Your task to perform on an android device: What is the speed of a rocket? Image 0: 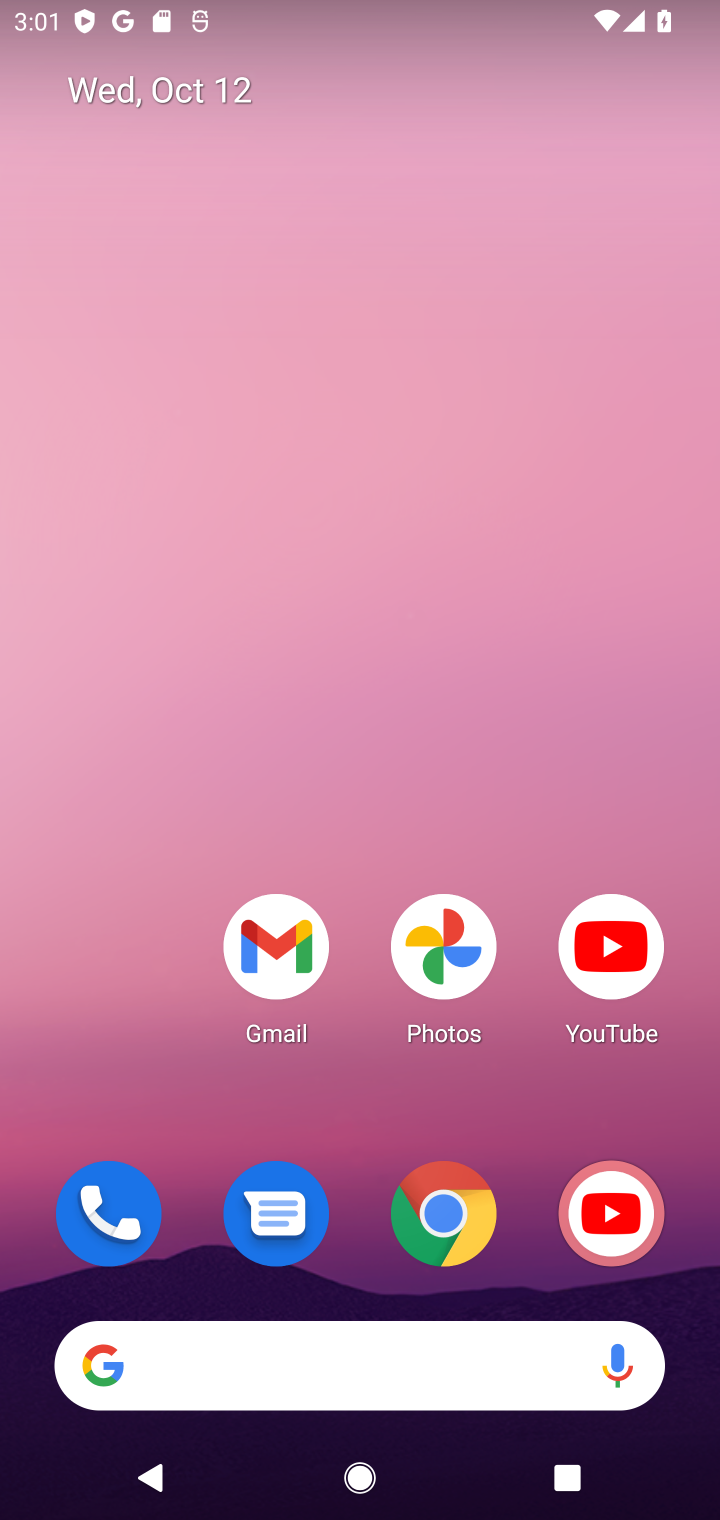
Step 0: click (372, 1372)
Your task to perform on an android device: What is the speed of a rocket? Image 1: 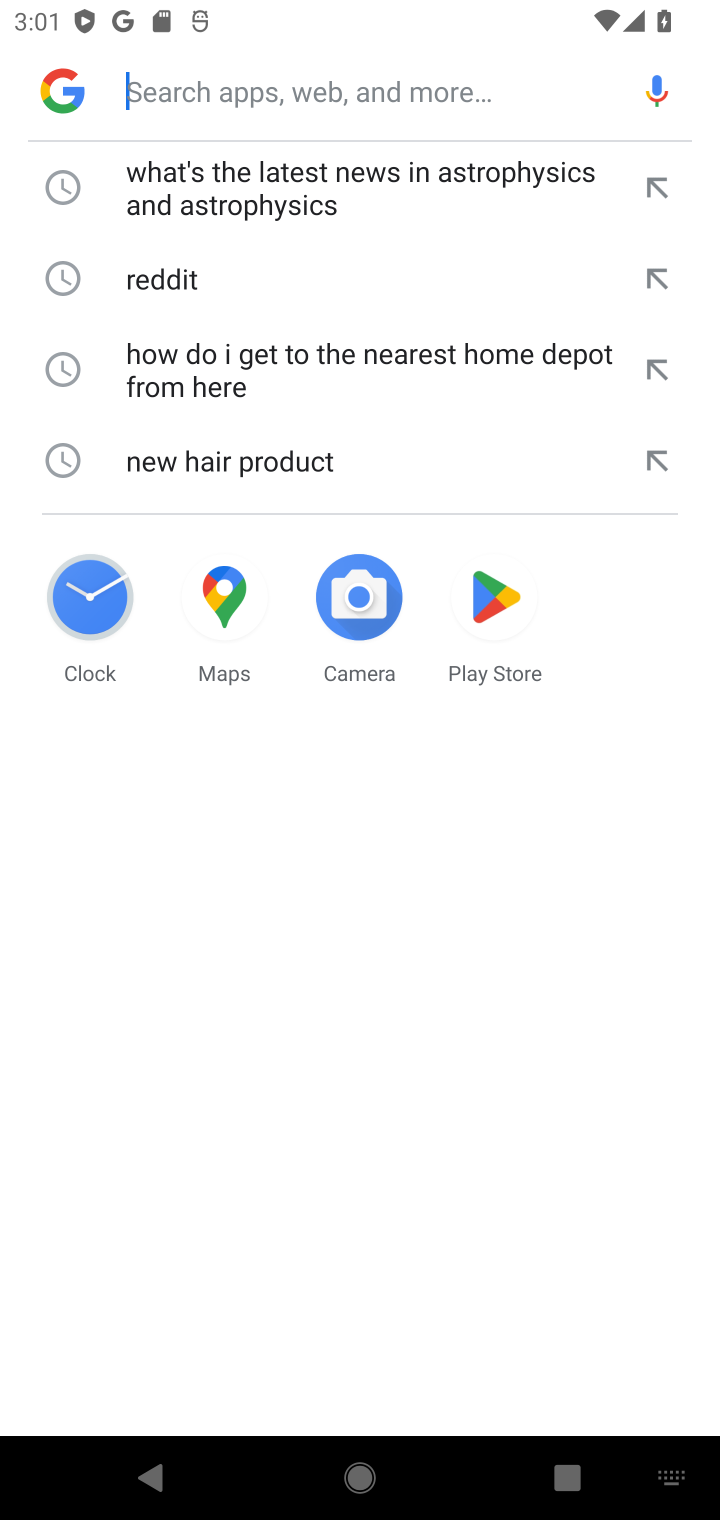
Step 1: click (207, 84)
Your task to perform on an android device: What is the speed of a rocket? Image 2: 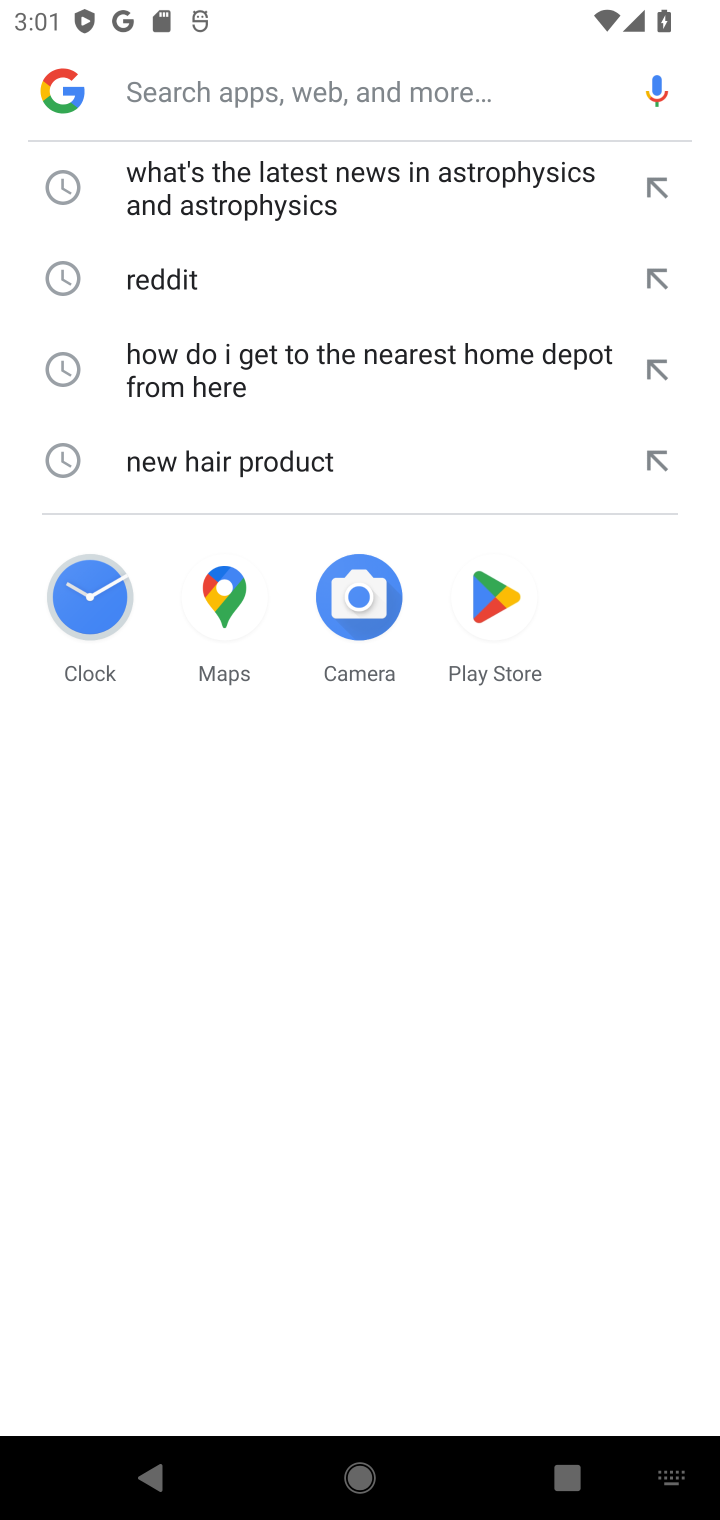
Step 2: type "What is the speed of a rocket?"
Your task to perform on an android device: What is the speed of a rocket? Image 3: 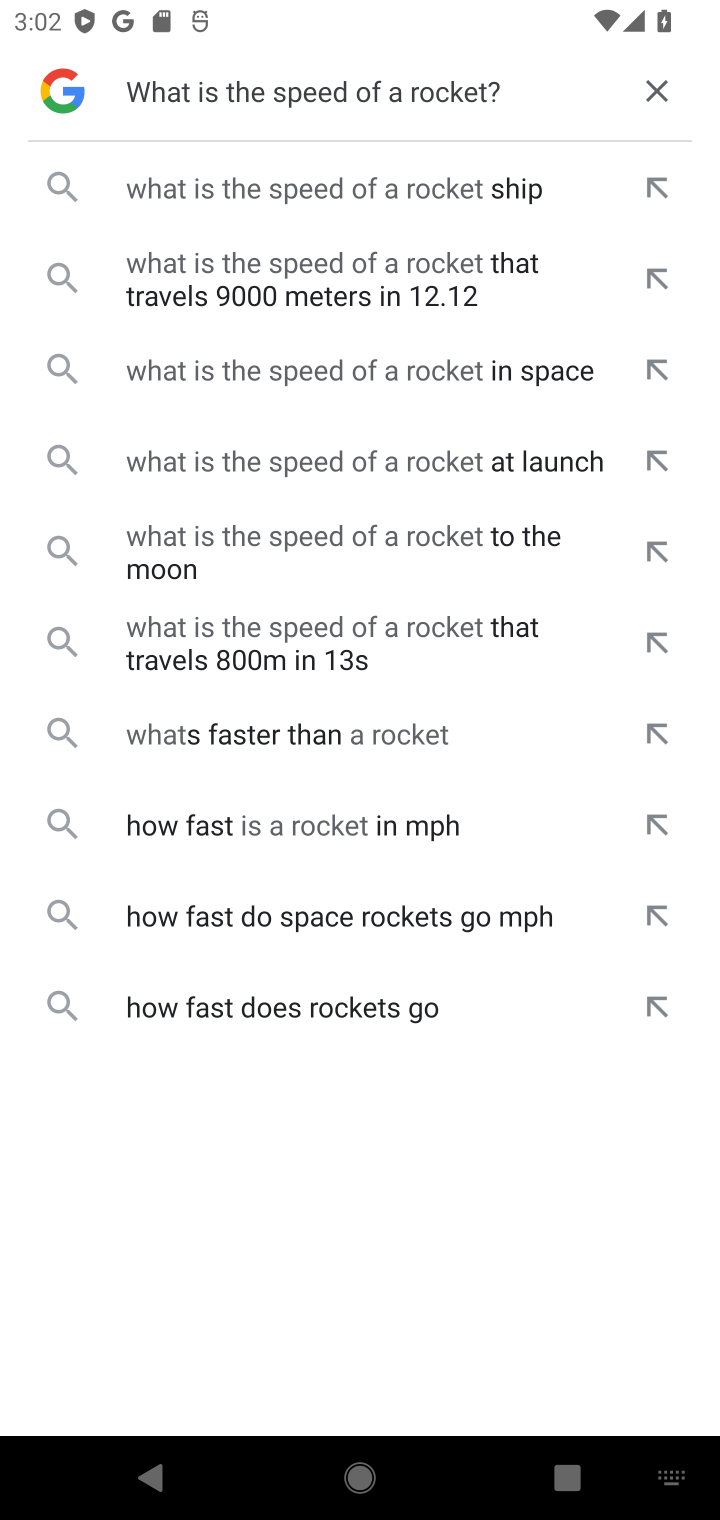
Step 3: click (264, 187)
Your task to perform on an android device: What is the speed of a rocket? Image 4: 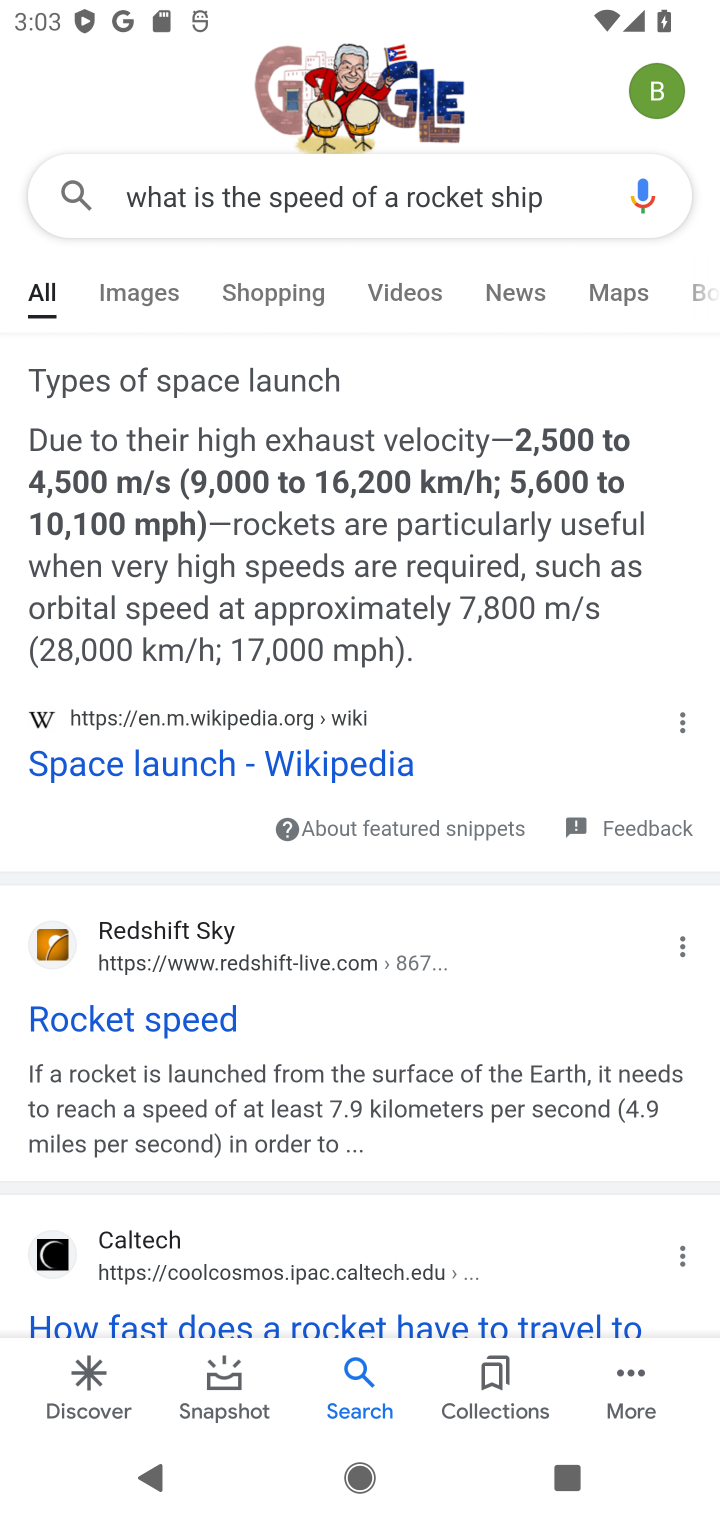
Step 4: task complete